Your task to perform on an android device: show emergency info Image 0: 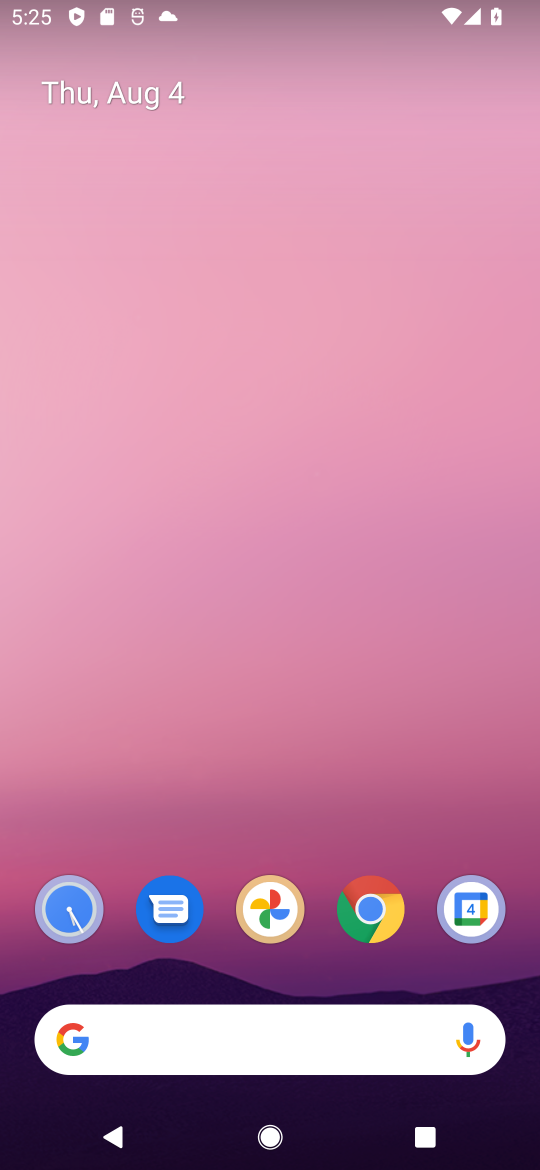
Step 0: drag from (218, 1042) to (123, 190)
Your task to perform on an android device: show emergency info Image 1: 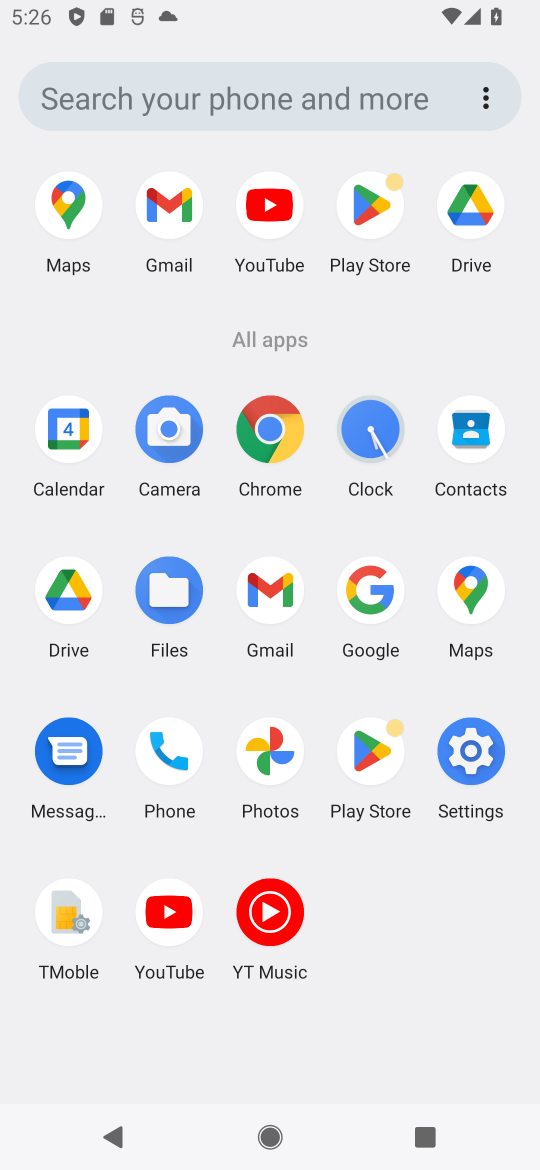
Step 1: click (473, 744)
Your task to perform on an android device: show emergency info Image 2: 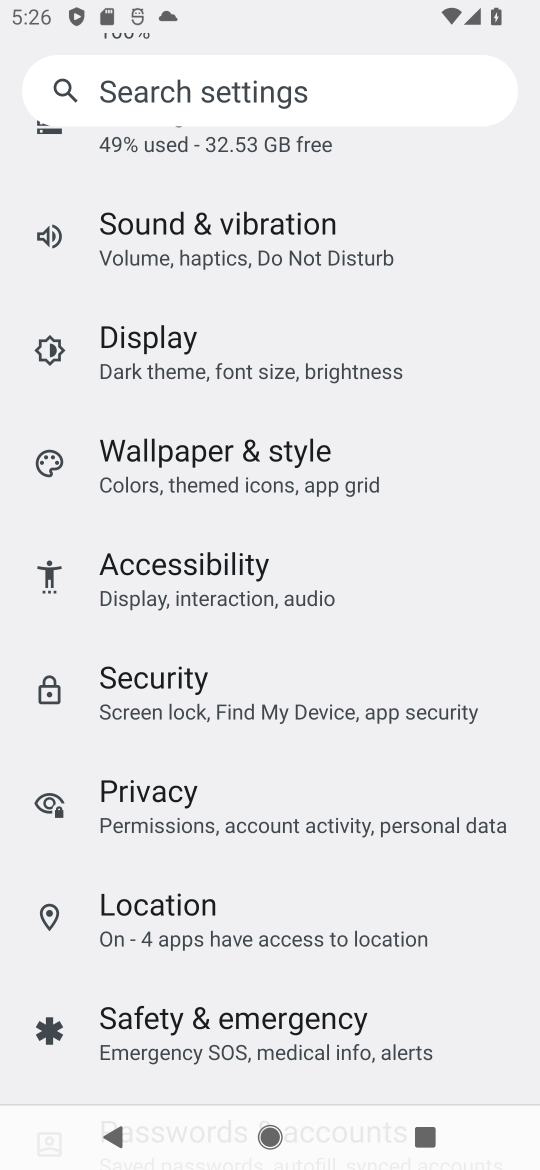
Step 2: click (282, 1016)
Your task to perform on an android device: show emergency info Image 3: 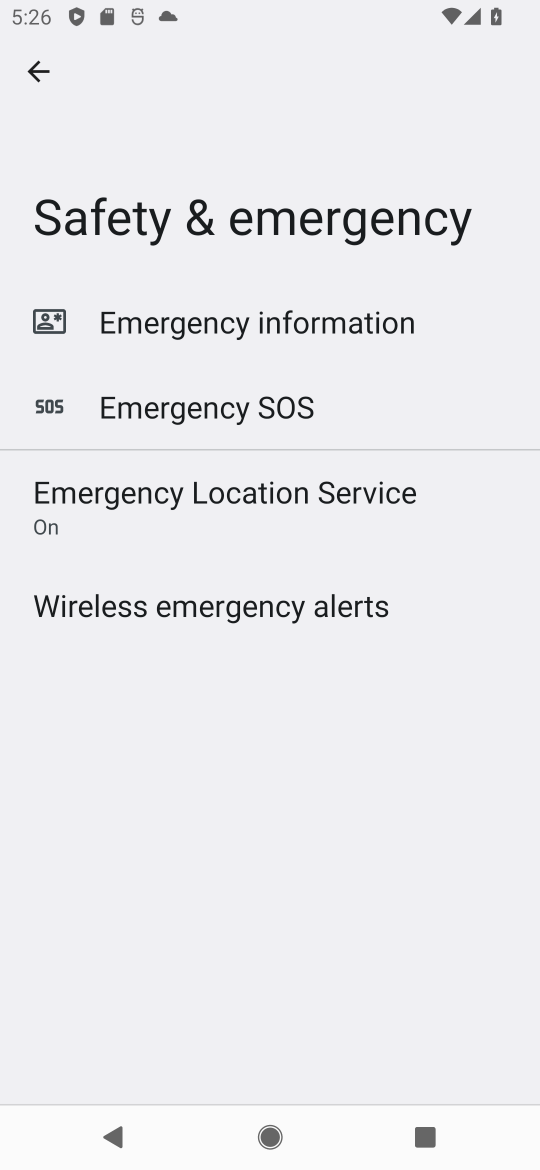
Step 3: click (235, 315)
Your task to perform on an android device: show emergency info Image 4: 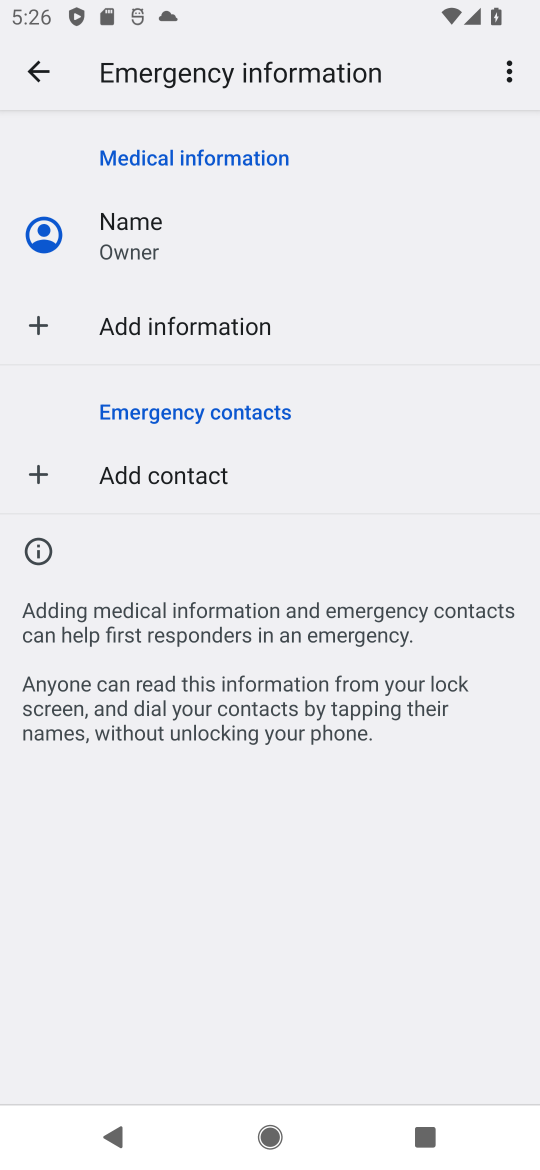
Step 4: task complete